Your task to perform on an android device: turn pop-ups on in chrome Image 0: 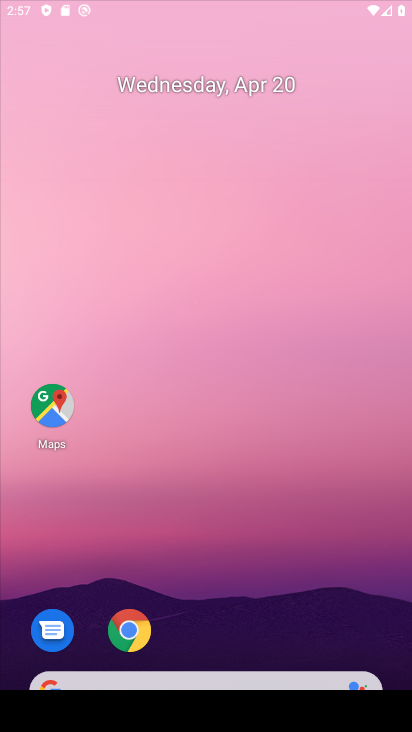
Step 0: drag from (246, 248) to (269, 93)
Your task to perform on an android device: turn pop-ups on in chrome Image 1: 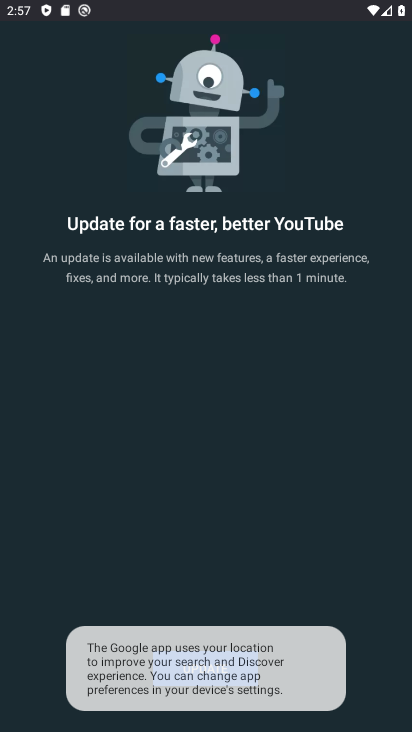
Step 1: drag from (190, 280) to (190, 186)
Your task to perform on an android device: turn pop-ups on in chrome Image 2: 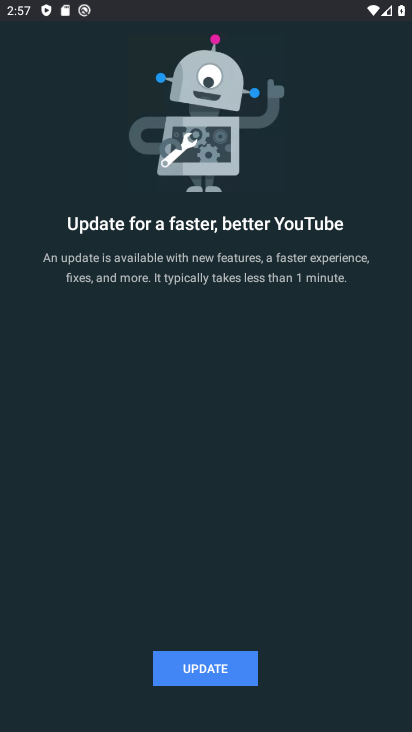
Step 2: press back button
Your task to perform on an android device: turn pop-ups on in chrome Image 3: 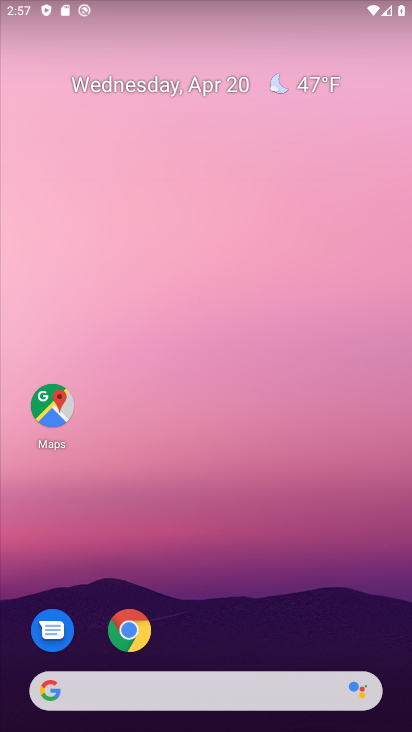
Step 3: drag from (245, 609) to (303, 220)
Your task to perform on an android device: turn pop-ups on in chrome Image 4: 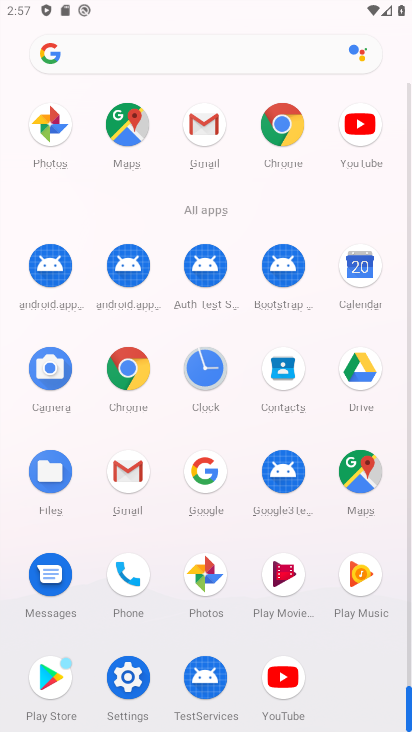
Step 4: click (277, 123)
Your task to perform on an android device: turn pop-ups on in chrome Image 5: 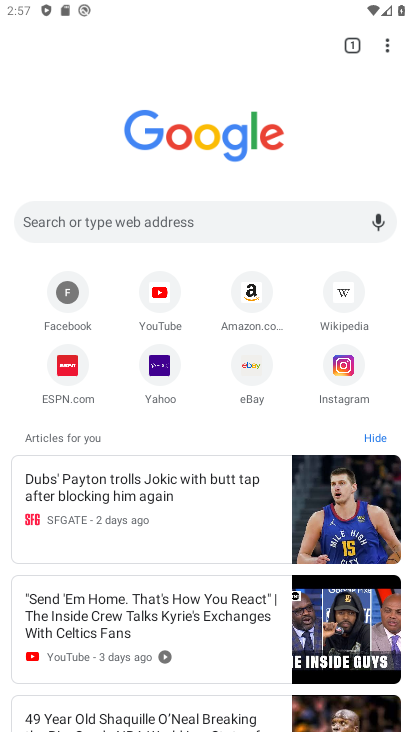
Step 5: click (392, 45)
Your task to perform on an android device: turn pop-ups on in chrome Image 6: 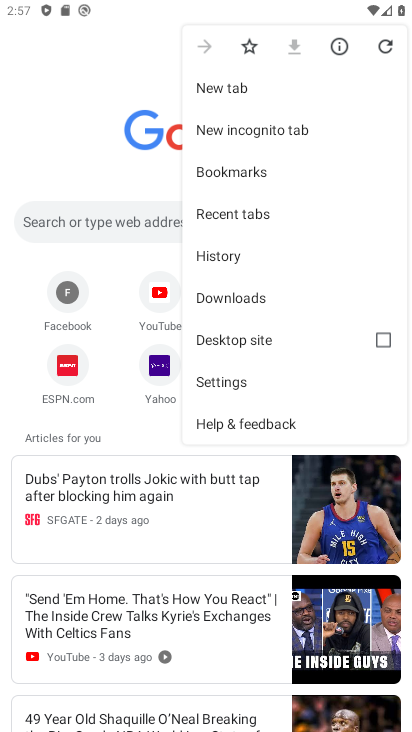
Step 6: click (246, 376)
Your task to perform on an android device: turn pop-ups on in chrome Image 7: 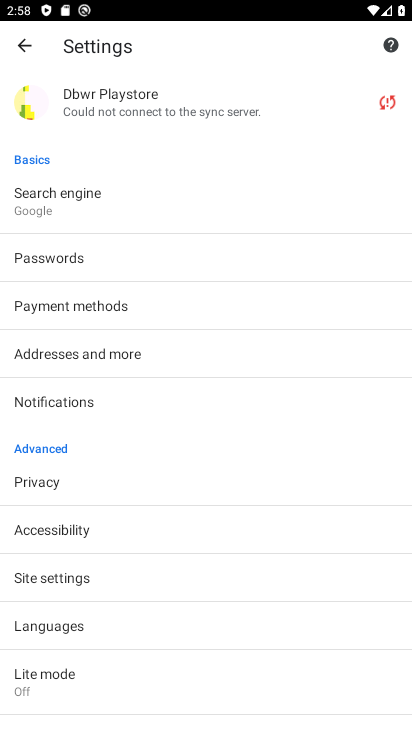
Step 7: drag from (100, 596) to (175, 243)
Your task to perform on an android device: turn pop-ups on in chrome Image 8: 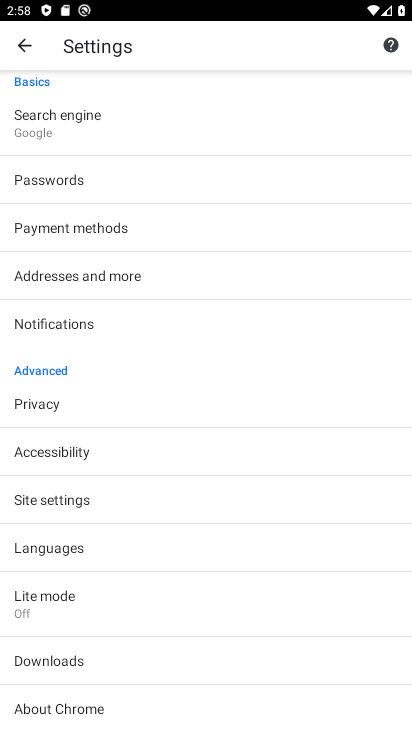
Step 8: drag from (181, 409) to (223, 330)
Your task to perform on an android device: turn pop-ups on in chrome Image 9: 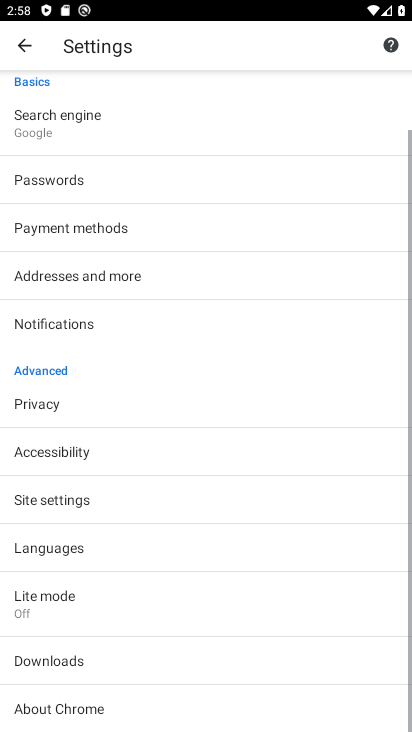
Step 9: click (109, 499)
Your task to perform on an android device: turn pop-ups on in chrome Image 10: 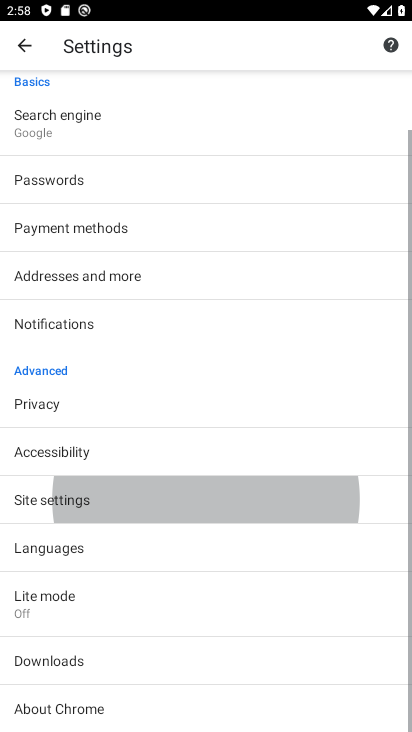
Step 10: click (109, 499)
Your task to perform on an android device: turn pop-ups on in chrome Image 11: 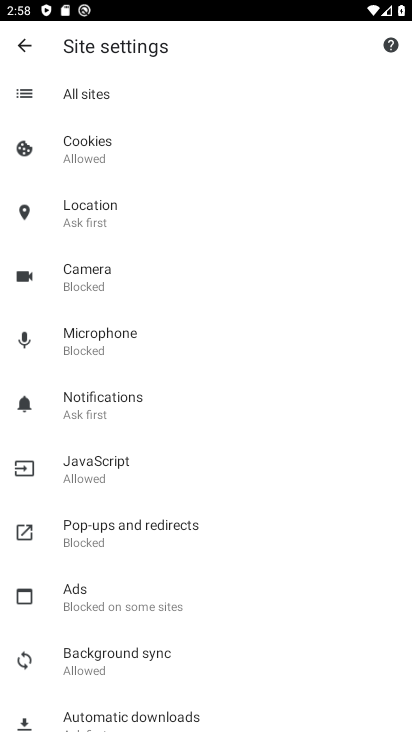
Step 11: click (131, 535)
Your task to perform on an android device: turn pop-ups on in chrome Image 12: 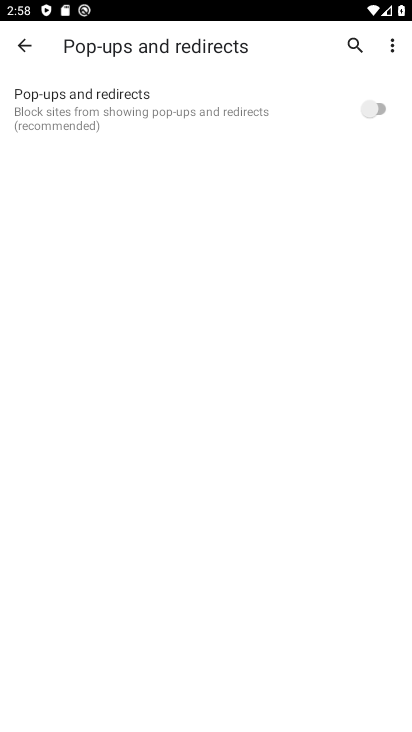
Step 12: click (371, 114)
Your task to perform on an android device: turn pop-ups on in chrome Image 13: 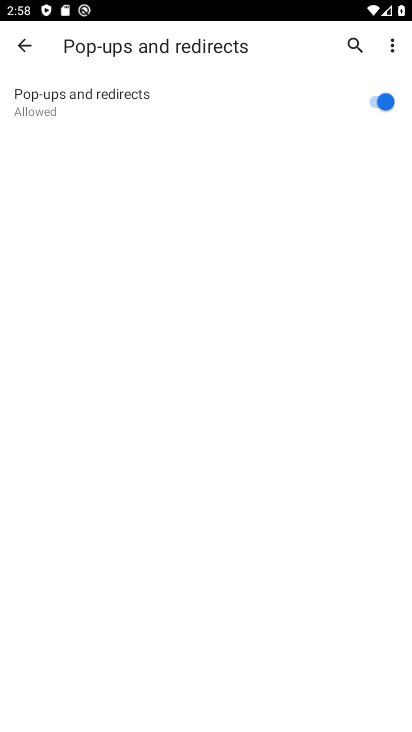
Step 13: task complete